Your task to perform on an android device: Do I have any events today? Image 0: 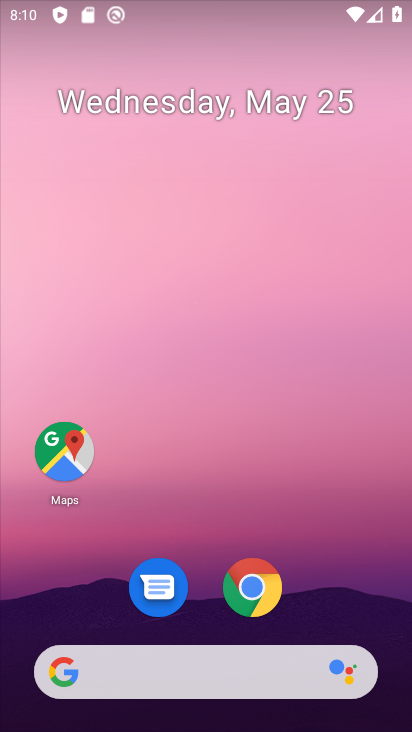
Step 0: drag from (311, 579) to (345, 151)
Your task to perform on an android device: Do I have any events today? Image 1: 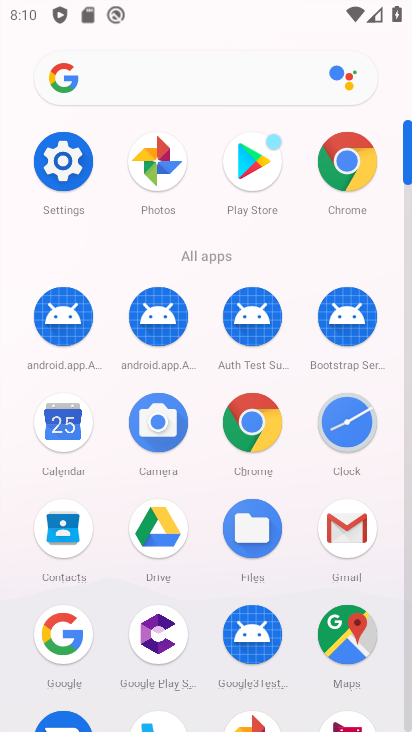
Step 1: click (56, 431)
Your task to perform on an android device: Do I have any events today? Image 2: 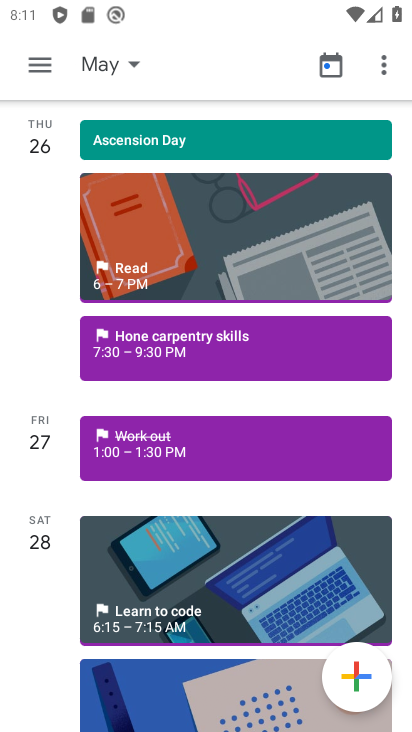
Step 2: task complete